Your task to perform on an android device: delete a single message in the gmail app Image 0: 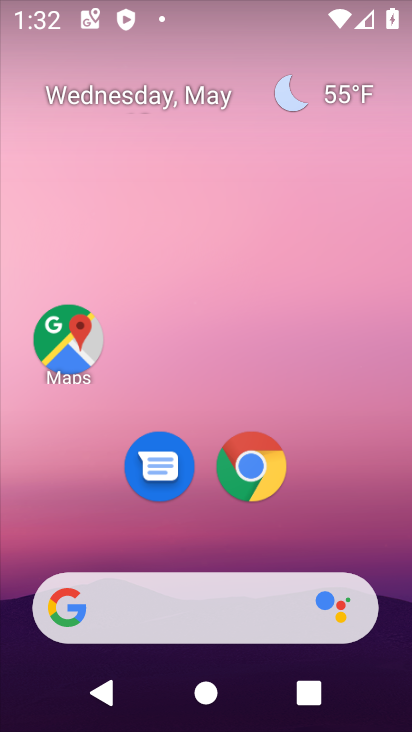
Step 0: drag from (306, 547) to (296, 9)
Your task to perform on an android device: delete a single message in the gmail app Image 1: 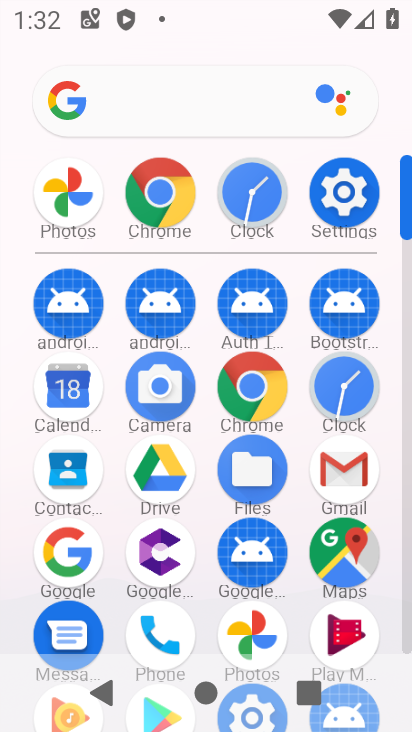
Step 1: click (342, 477)
Your task to perform on an android device: delete a single message in the gmail app Image 2: 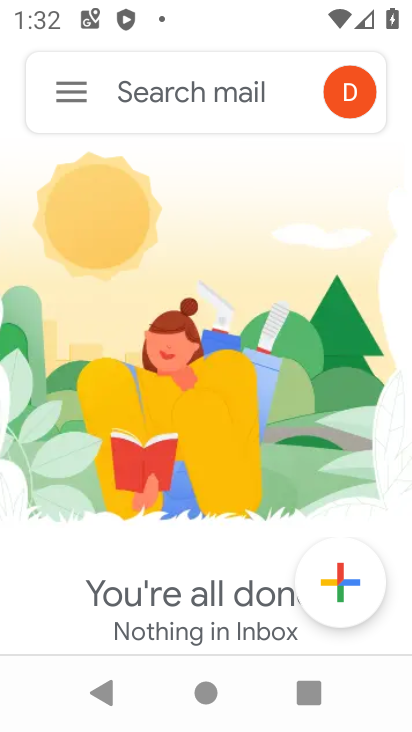
Step 2: click (80, 110)
Your task to perform on an android device: delete a single message in the gmail app Image 3: 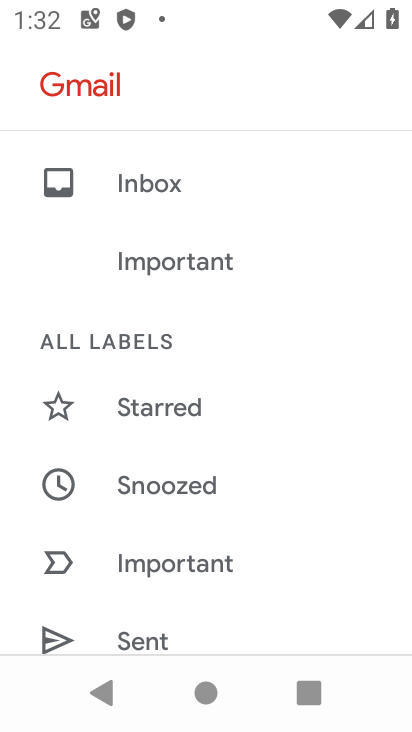
Step 3: drag from (249, 551) to (231, 412)
Your task to perform on an android device: delete a single message in the gmail app Image 4: 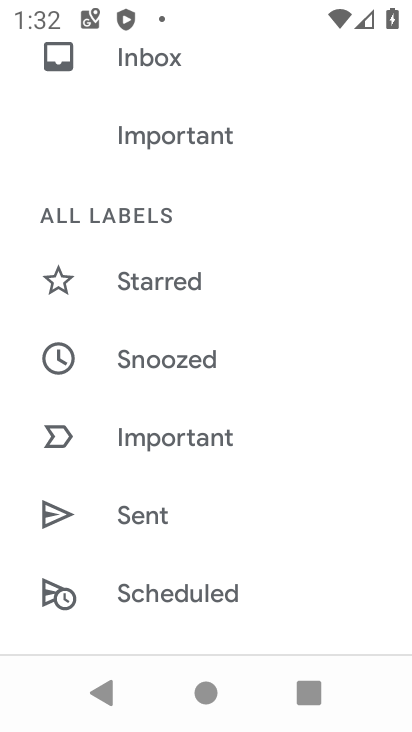
Step 4: drag from (222, 580) to (226, 399)
Your task to perform on an android device: delete a single message in the gmail app Image 5: 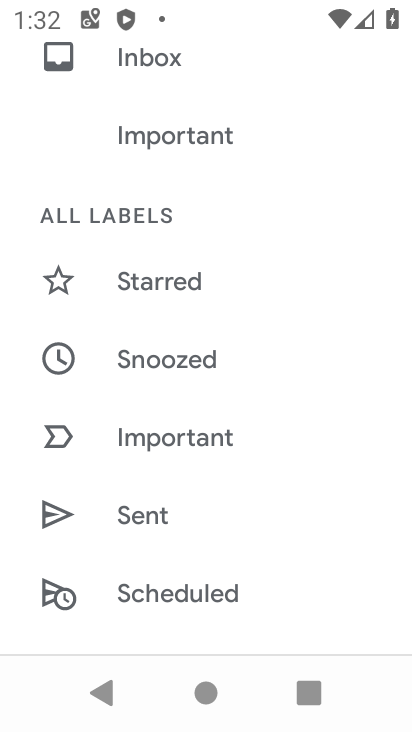
Step 5: drag from (247, 488) to (285, 248)
Your task to perform on an android device: delete a single message in the gmail app Image 6: 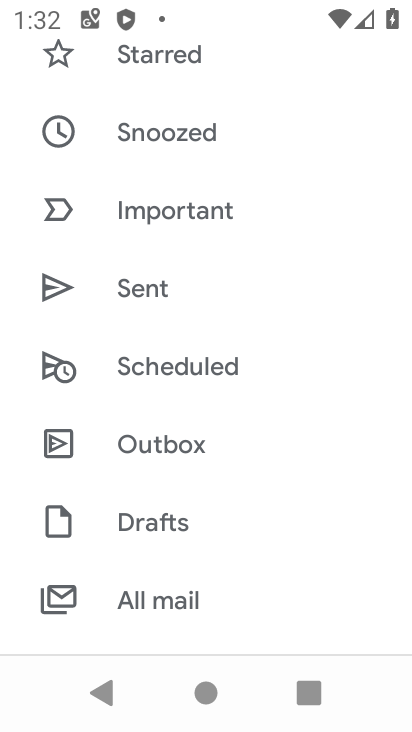
Step 6: click (175, 592)
Your task to perform on an android device: delete a single message in the gmail app Image 7: 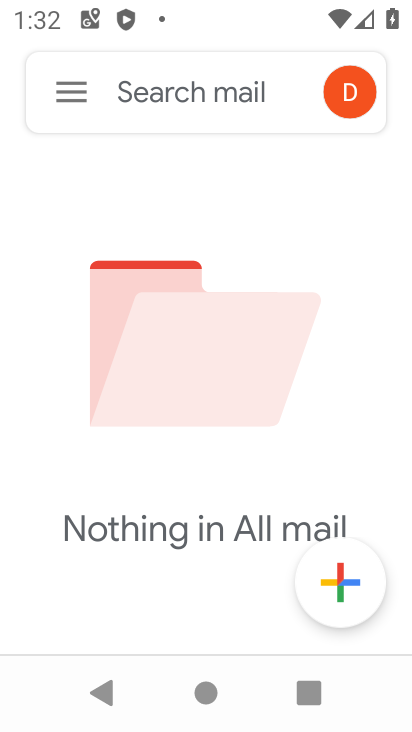
Step 7: task complete